Your task to perform on an android device: toggle priority inbox in the gmail app Image 0: 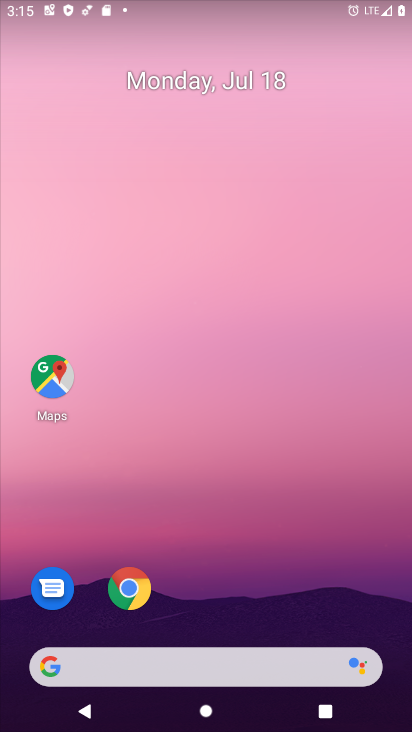
Step 0: drag from (210, 607) to (279, 58)
Your task to perform on an android device: toggle priority inbox in the gmail app Image 1: 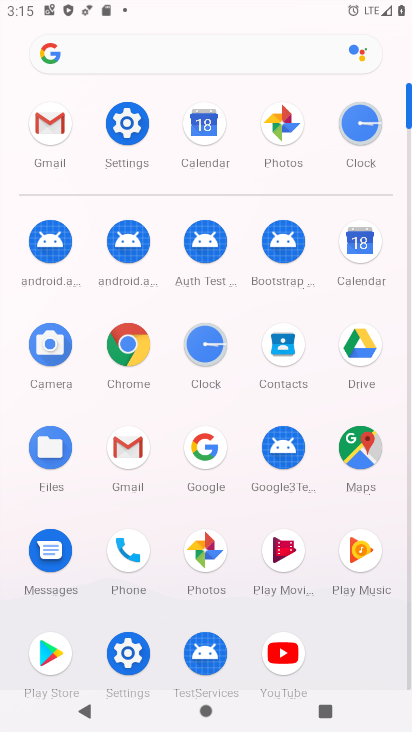
Step 1: click (52, 126)
Your task to perform on an android device: toggle priority inbox in the gmail app Image 2: 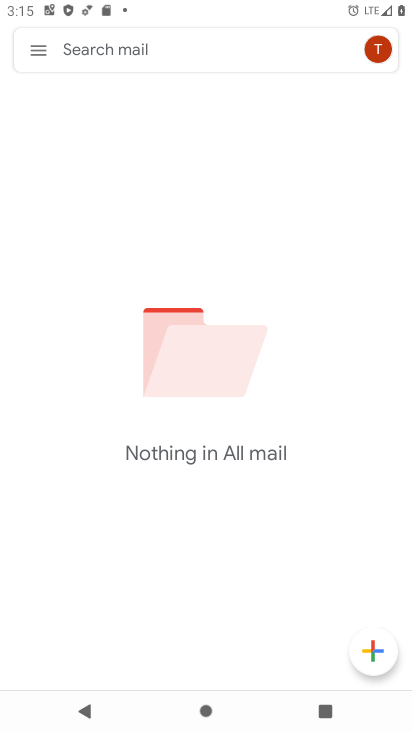
Step 2: click (44, 52)
Your task to perform on an android device: toggle priority inbox in the gmail app Image 3: 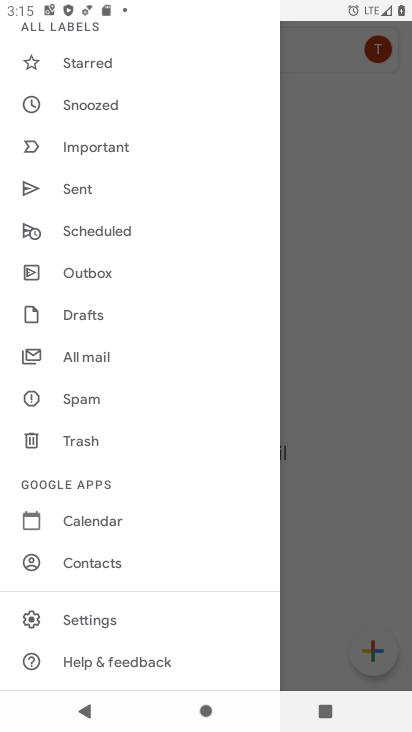
Step 3: click (91, 619)
Your task to perform on an android device: toggle priority inbox in the gmail app Image 4: 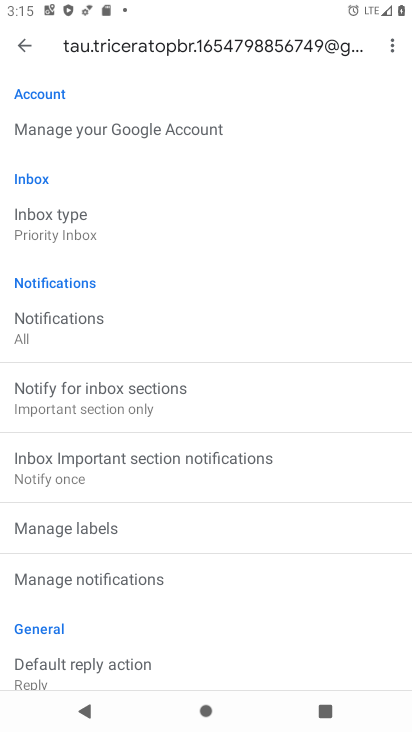
Step 4: click (30, 219)
Your task to perform on an android device: toggle priority inbox in the gmail app Image 5: 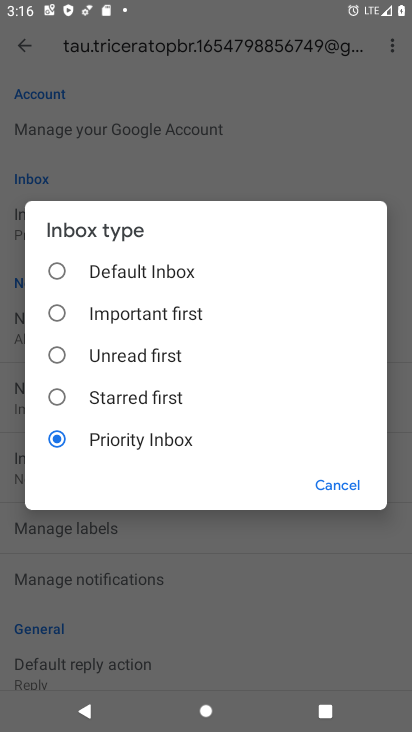
Step 5: click (57, 437)
Your task to perform on an android device: toggle priority inbox in the gmail app Image 6: 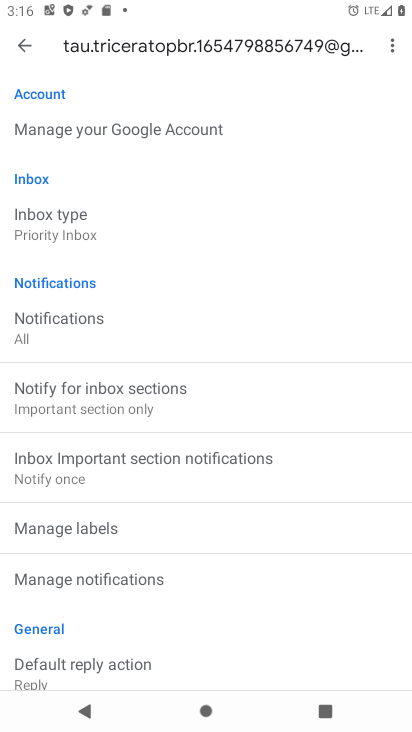
Step 6: task complete